Your task to perform on an android device: Go to Yahoo.com Image 0: 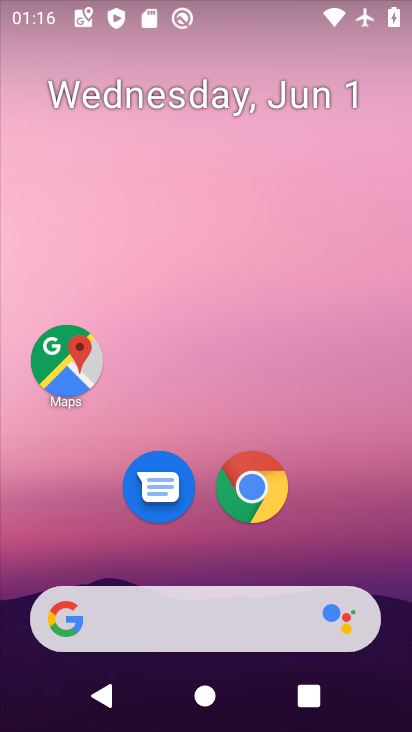
Step 0: click (264, 492)
Your task to perform on an android device: Go to Yahoo.com Image 1: 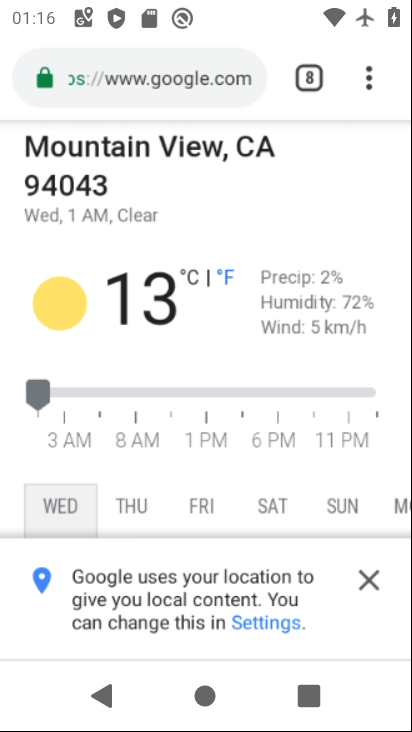
Step 1: click (357, 70)
Your task to perform on an android device: Go to Yahoo.com Image 2: 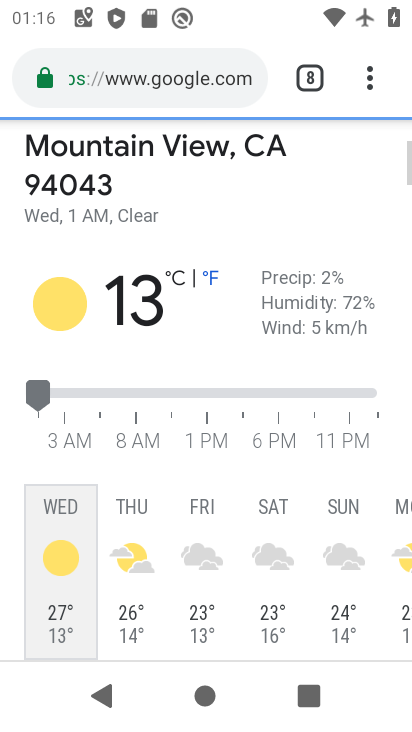
Step 2: click (359, 82)
Your task to perform on an android device: Go to Yahoo.com Image 3: 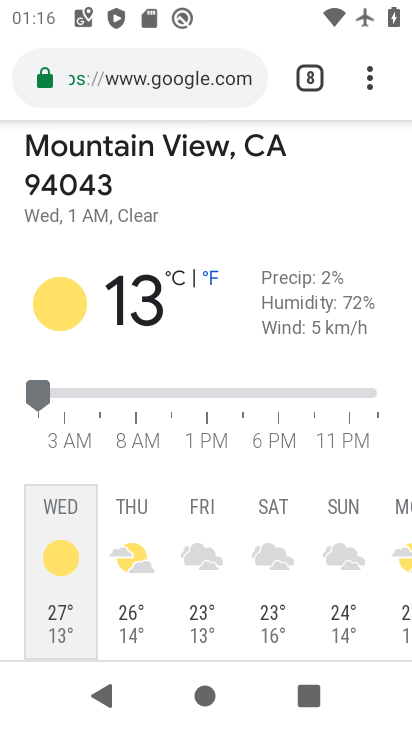
Step 3: click (382, 78)
Your task to perform on an android device: Go to Yahoo.com Image 4: 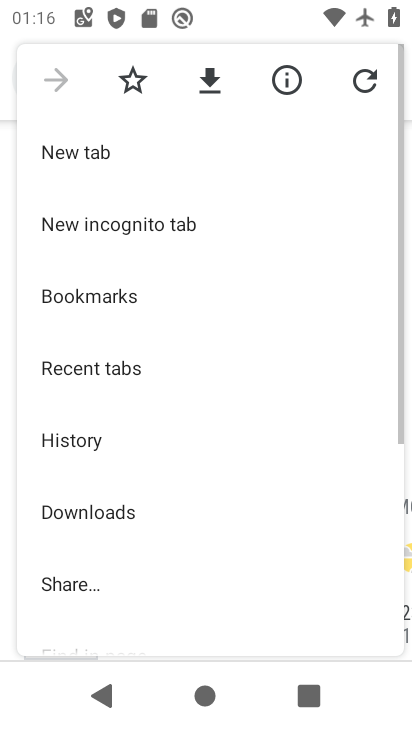
Step 4: click (142, 154)
Your task to perform on an android device: Go to Yahoo.com Image 5: 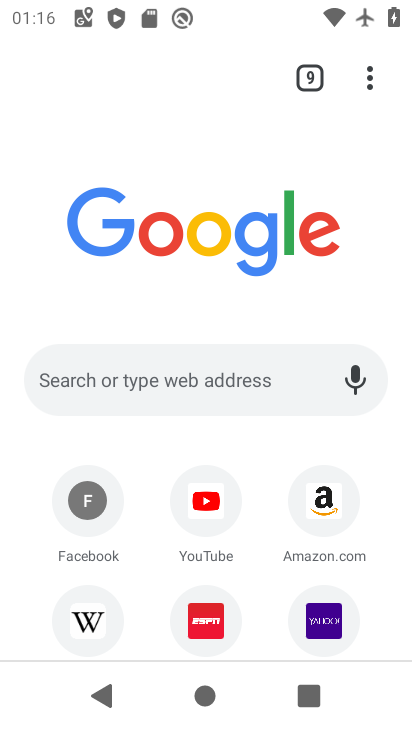
Step 5: click (307, 607)
Your task to perform on an android device: Go to Yahoo.com Image 6: 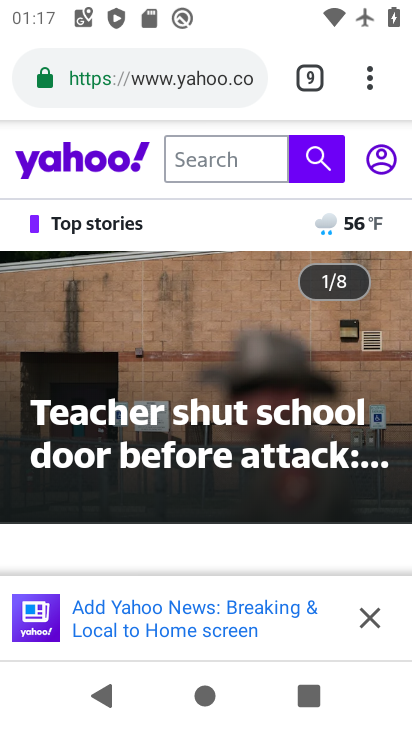
Step 6: click (369, 618)
Your task to perform on an android device: Go to Yahoo.com Image 7: 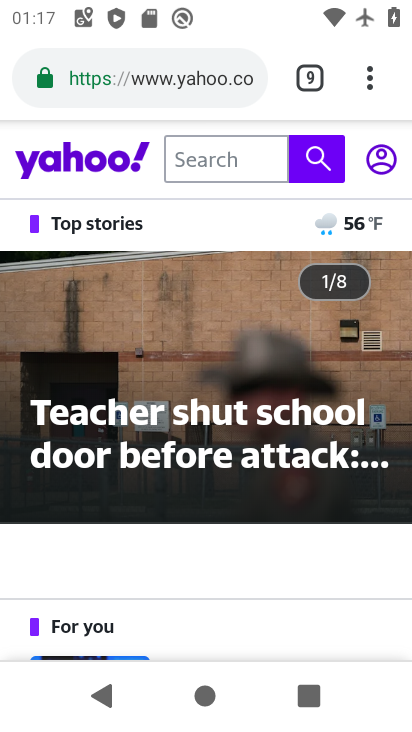
Step 7: task complete